Your task to perform on an android device: open app "Truecaller" (install if not already installed) Image 0: 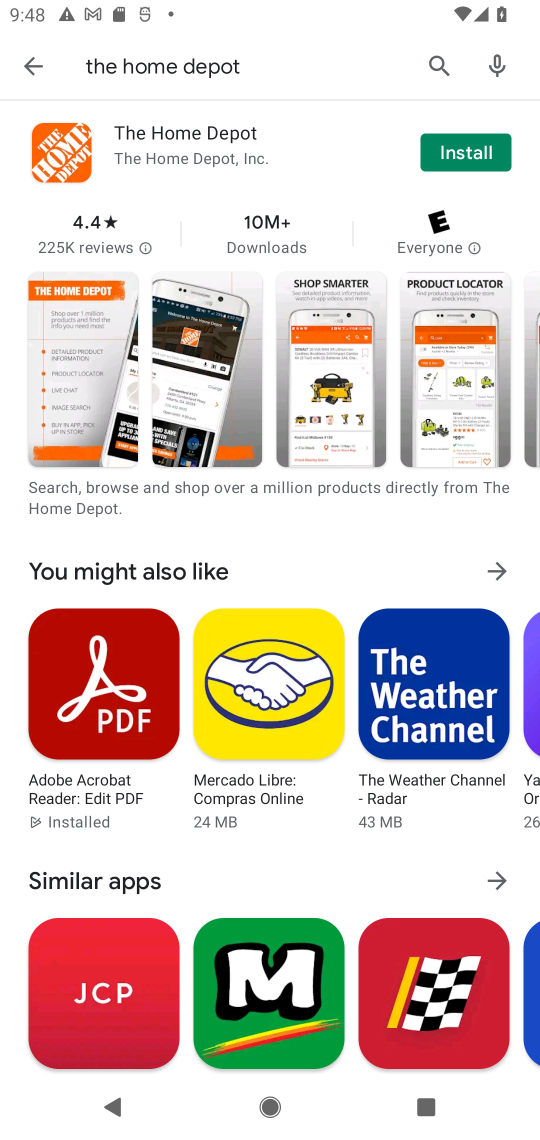
Step 0: click (176, 65)
Your task to perform on an android device: open app "Truecaller" (install if not already installed) Image 1: 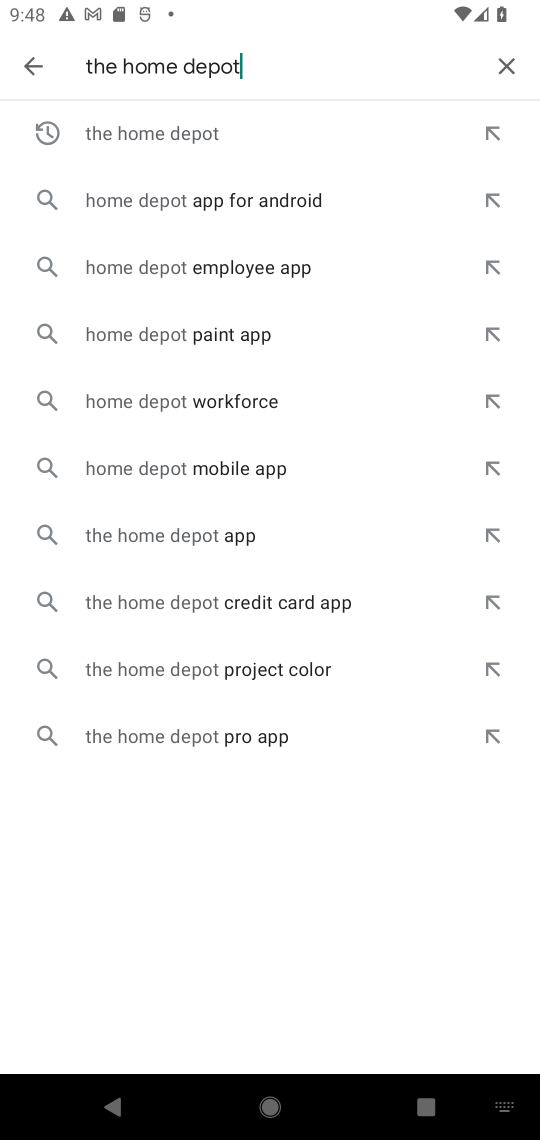
Step 1: click (499, 66)
Your task to perform on an android device: open app "Truecaller" (install if not already installed) Image 2: 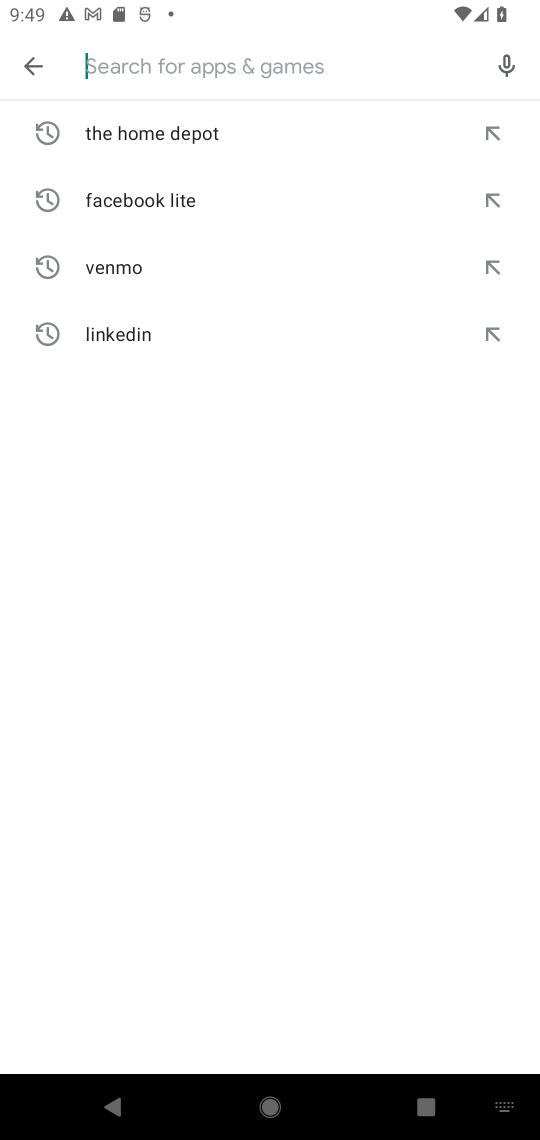
Step 2: type "Truecaller"
Your task to perform on an android device: open app "Truecaller" (install if not already installed) Image 3: 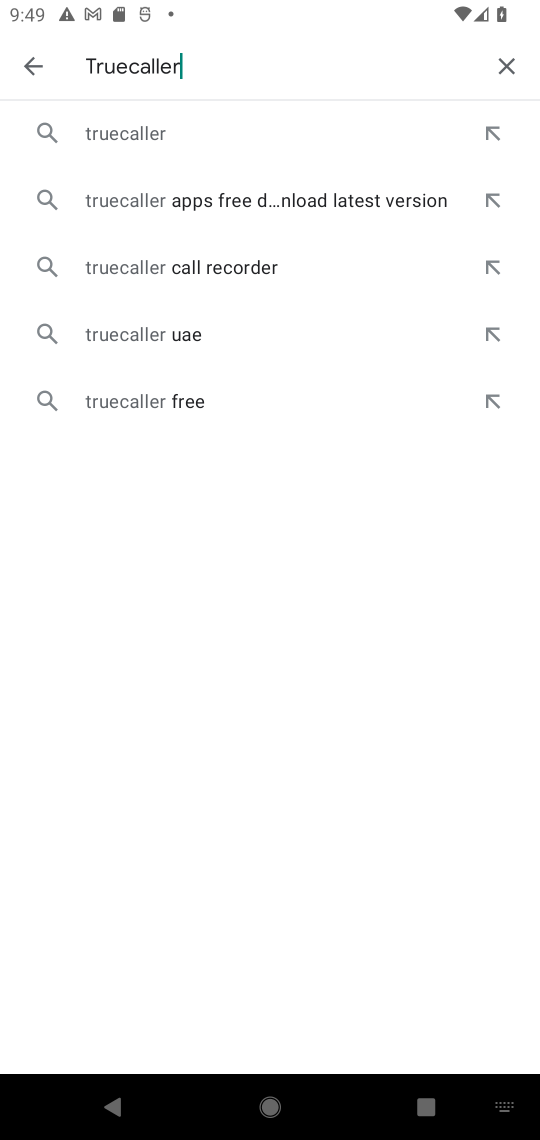
Step 3: click (161, 123)
Your task to perform on an android device: open app "Truecaller" (install if not already installed) Image 4: 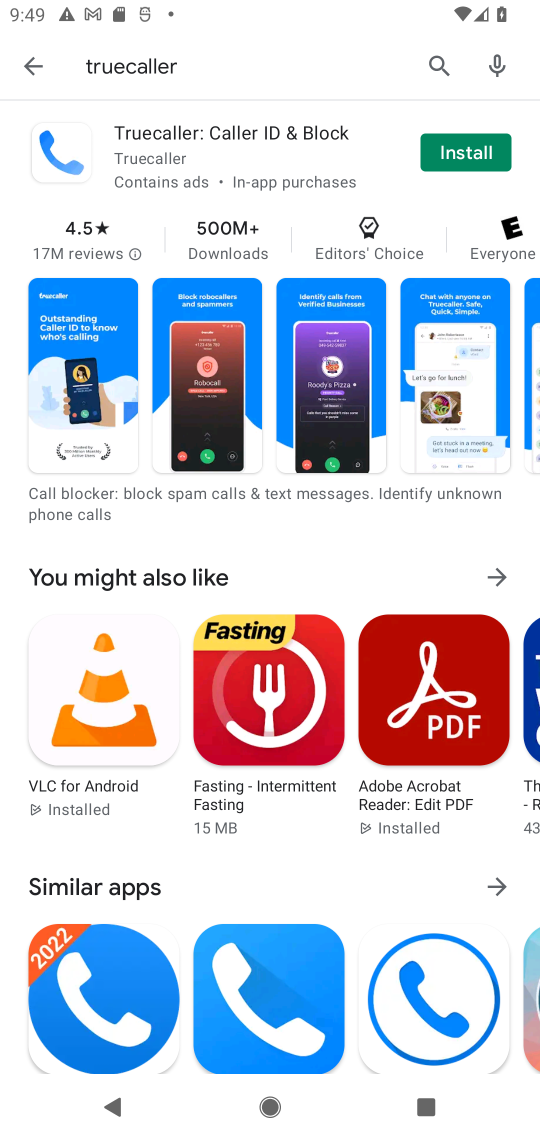
Step 4: click (473, 152)
Your task to perform on an android device: open app "Truecaller" (install if not already installed) Image 5: 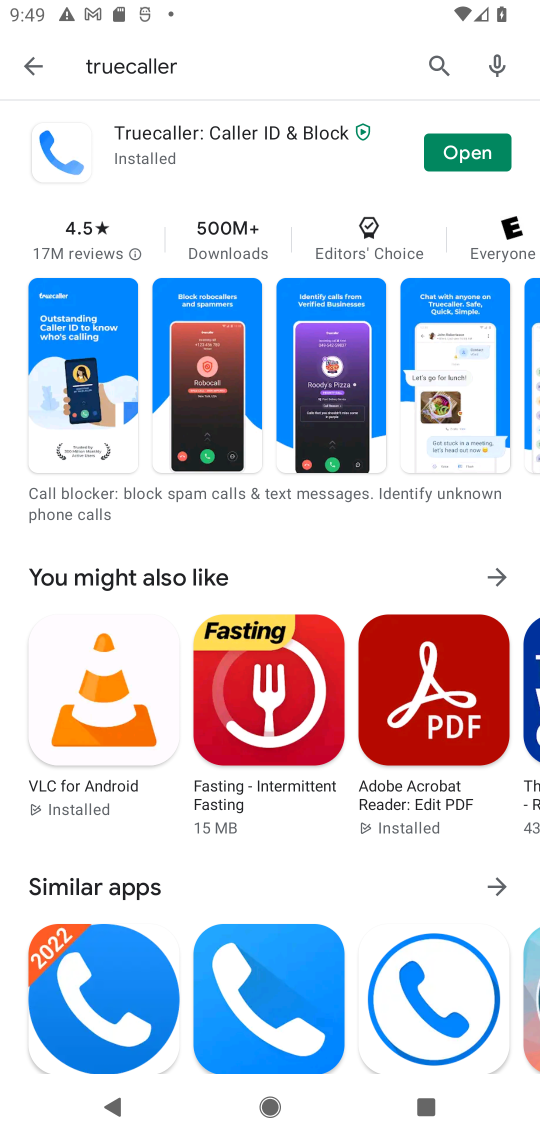
Step 5: click (452, 151)
Your task to perform on an android device: open app "Truecaller" (install if not already installed) Image 6: 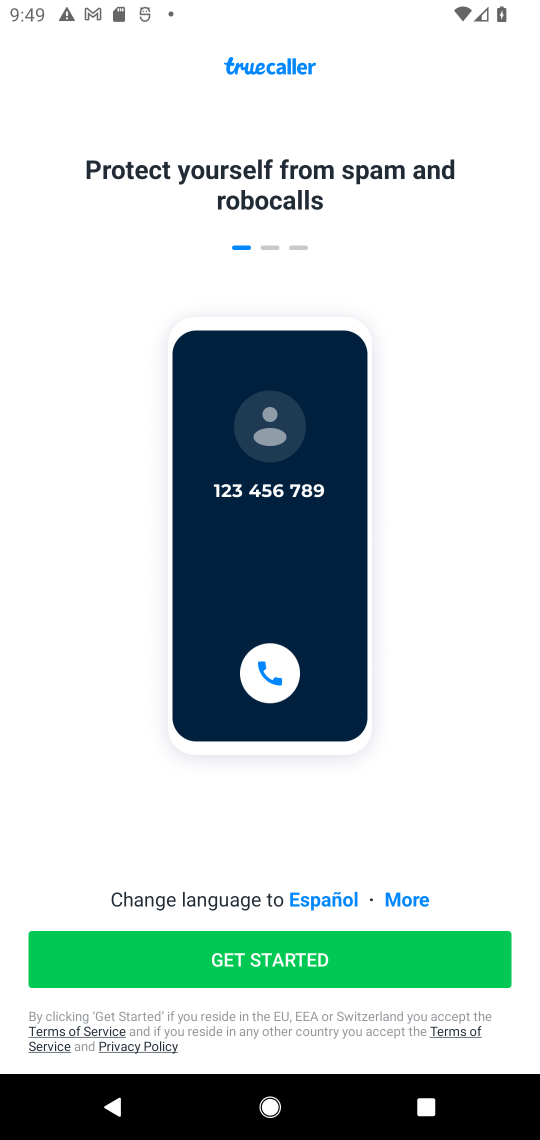
Step 6: click (296, 955)
Your task to perform on an android device: open app "Truecaller" (install if not already installed) Image 7: 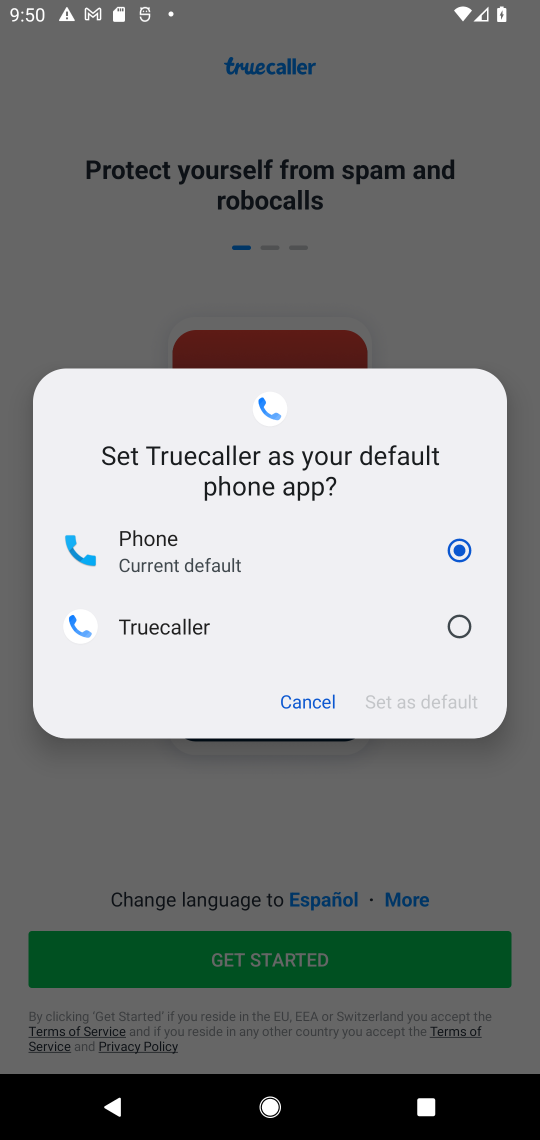
Step 7: task complete